Your task to perform on an android device: turn off priority inbox in the gmail app Image 0: 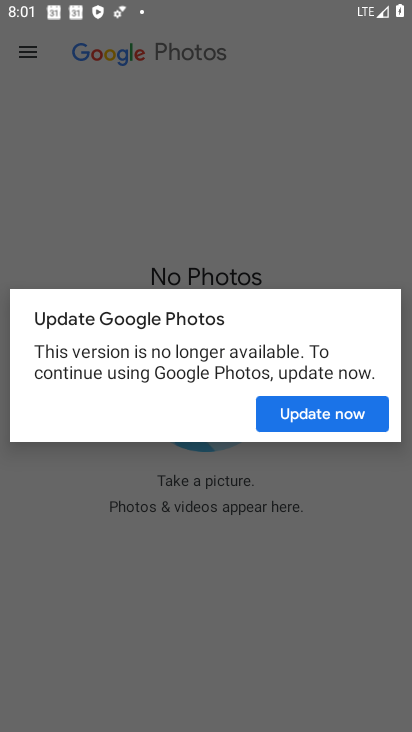
Step 0: press back button
Your task to perform on an android device: turn off priority inbox in the gmail app Image 1: 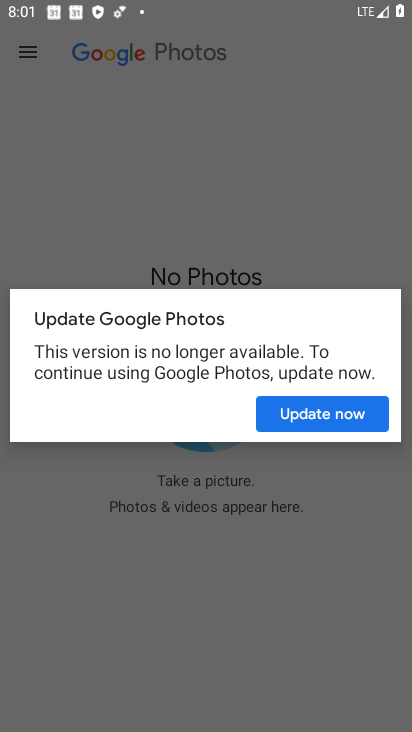
Step 1: press home button
Your task to perform on an android device: turn off priority inbox in the gmail app Image 2: 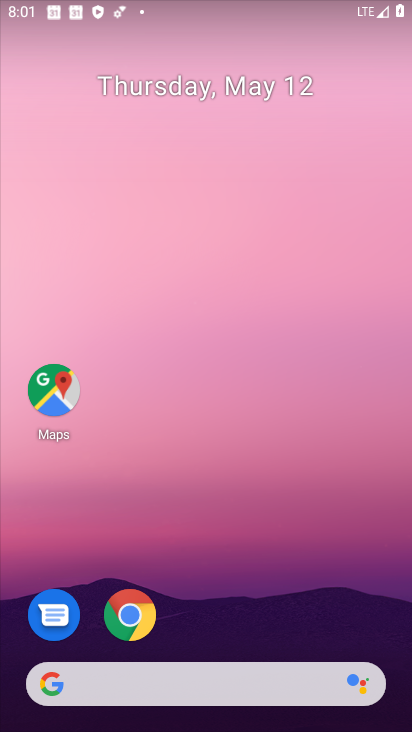
Step 2: drag from (245, 561) to (245, 20)
Your task to perform on an android device: turn off priority inbox in the gmail app Image 3: 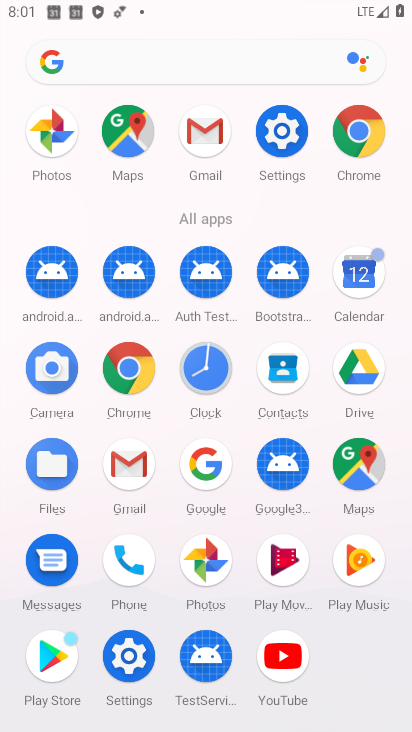
Step 3: click (125, 462)
Your task to perform on an android device: turn off priority inbox in the gmail app Image 4: 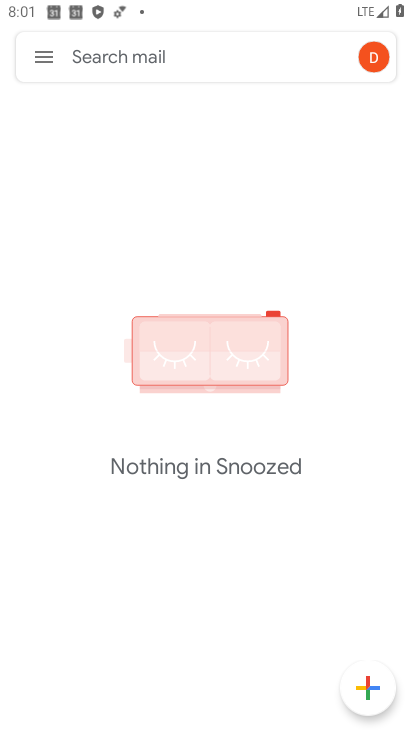
Step 4: click (40, 62)
Your task to perform on an android device: turn off priority inbox in the gmail app Image 5: 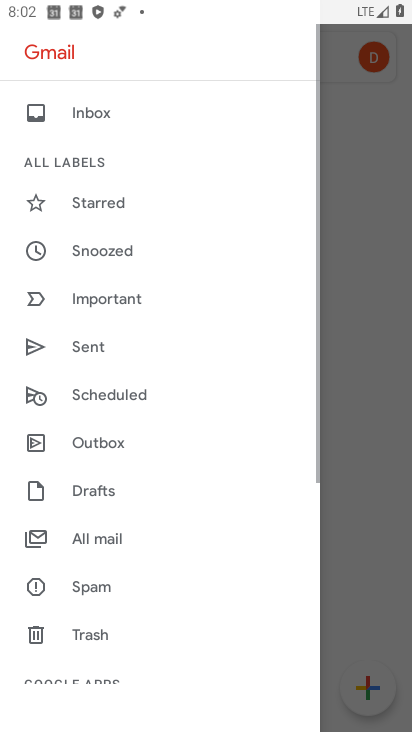
Step 5: drag from (207, 551) to (217, 124)
Your task to perform on an android device: turn off priority inbox in the gmail app Image 6: 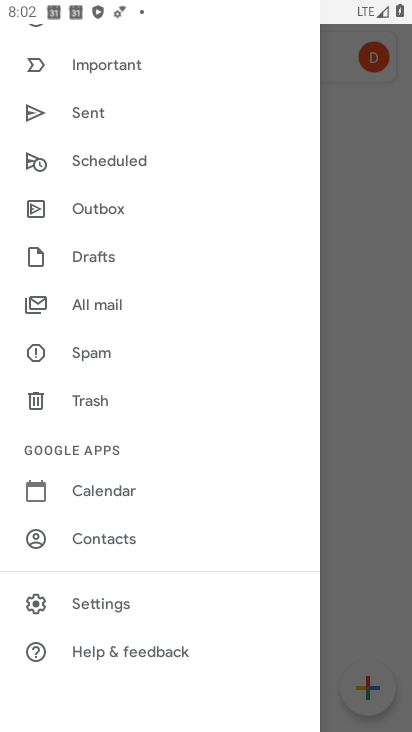
Step 6: click (112, 602)
Your task to perform on an android device: turn off priority inbox in the gmail app Image 7: 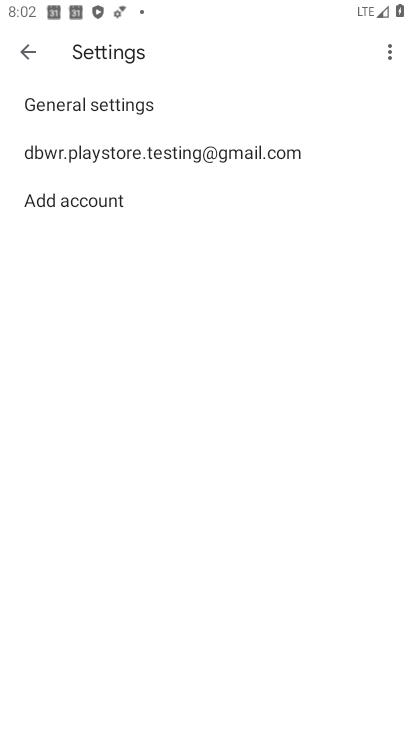
Step 7: click (168, 141)
Your task to perform on an android device: turn off priority inbox in the gmail app Image 8: 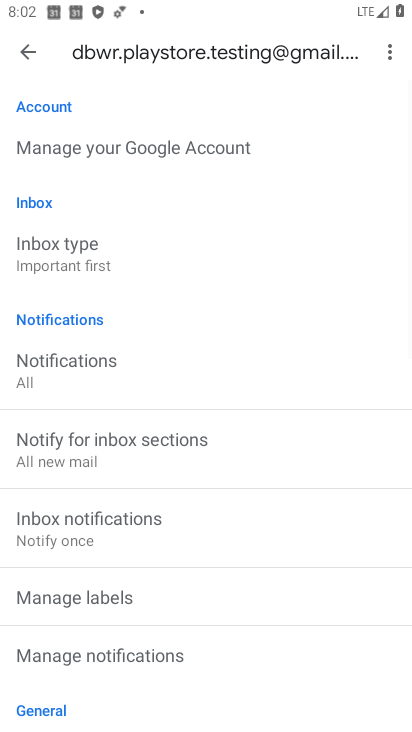
Step 8: click (110, 253)
Your task to perform on an android device: turn off priority inbox in the gmail app Image 9: 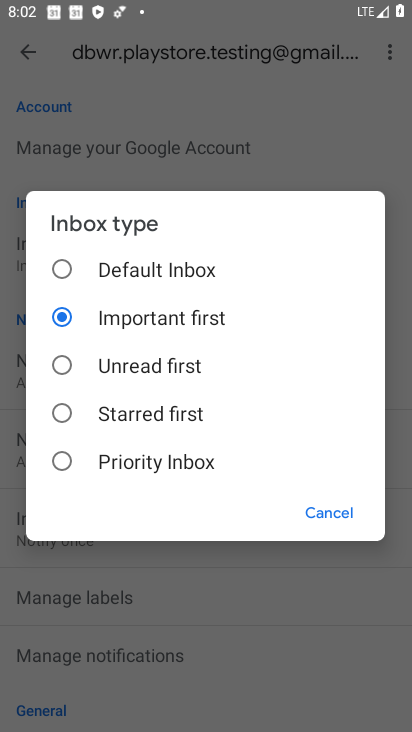
Step 9: click (147, 276)
Your task to perform on an android device: turn off priority inbox in the gmail app Image 10: 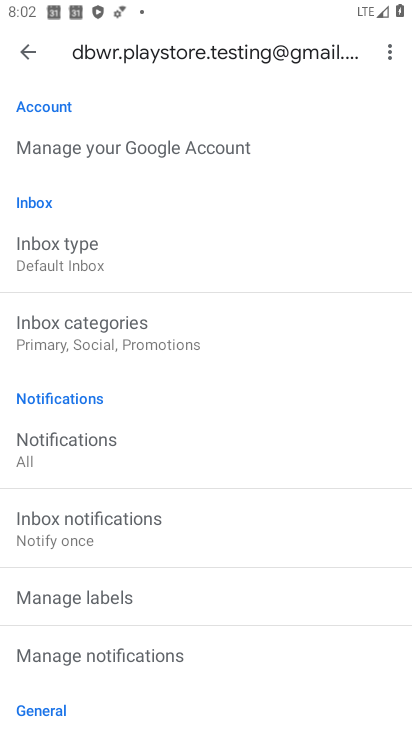
Step 10: task complete